Your task to perform on an android device: Open the calendar app, open the side menu, and click the "Day" option Image 0: 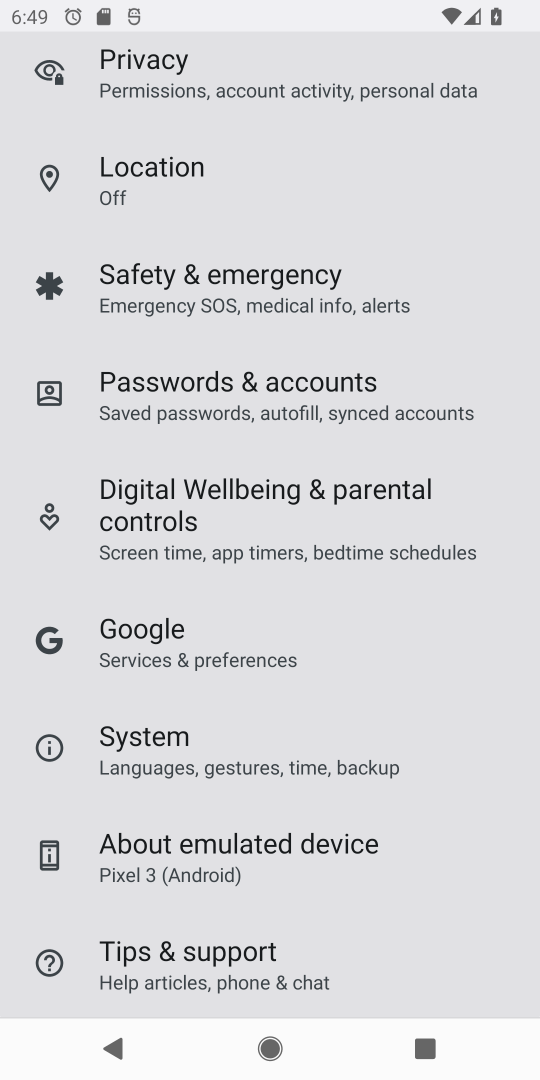
Step 0: press home button
Your task to perform on an android device: Open the calendar app, open the side menu, and click the "Day" option Image 1: 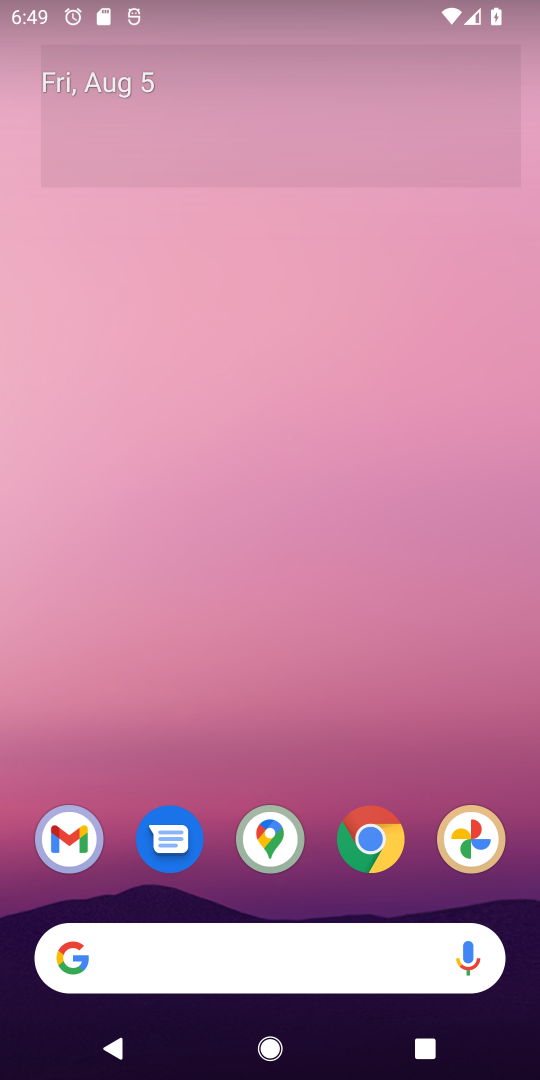
Step 1: drag from (279, 727) to (290, 85)
Your task to perform on an android device: Open the calendar app, open the side menu, and click the "Day" option Image 2: 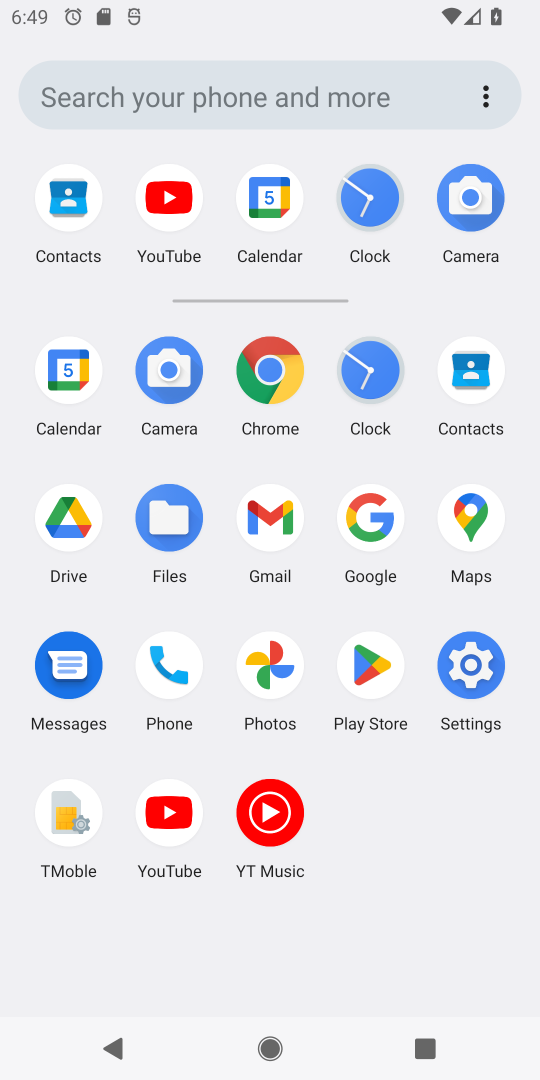
Step 2: click (62, 413)
Your task to perform on an android device: Open the calendar app, open the side menu, and click the "Day" option Image 3: 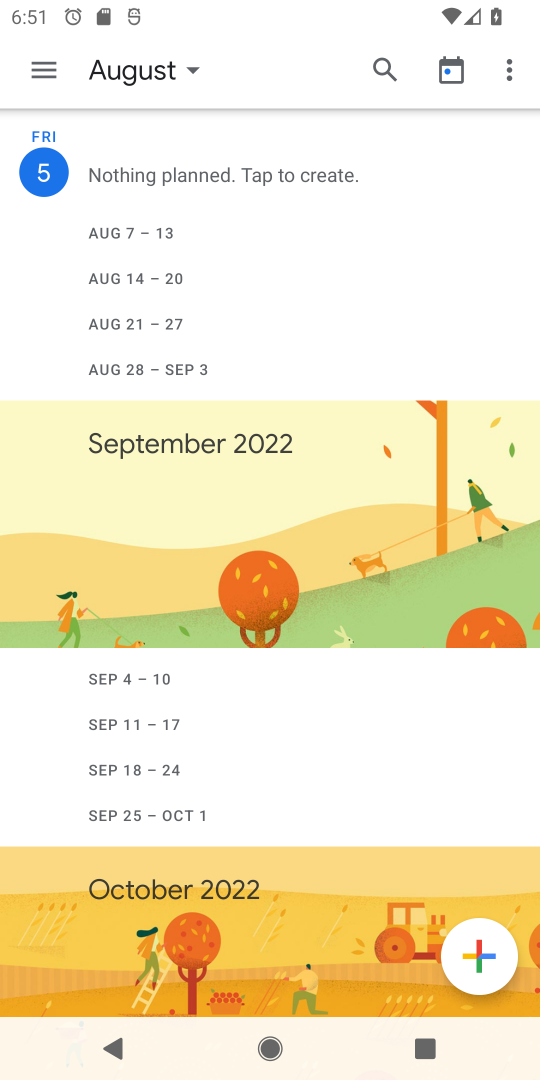
Step 3: click (52, 66)
Your task to perform on an android device: Open the calendar app, open the side menu, and click the "Day" option Image 4: 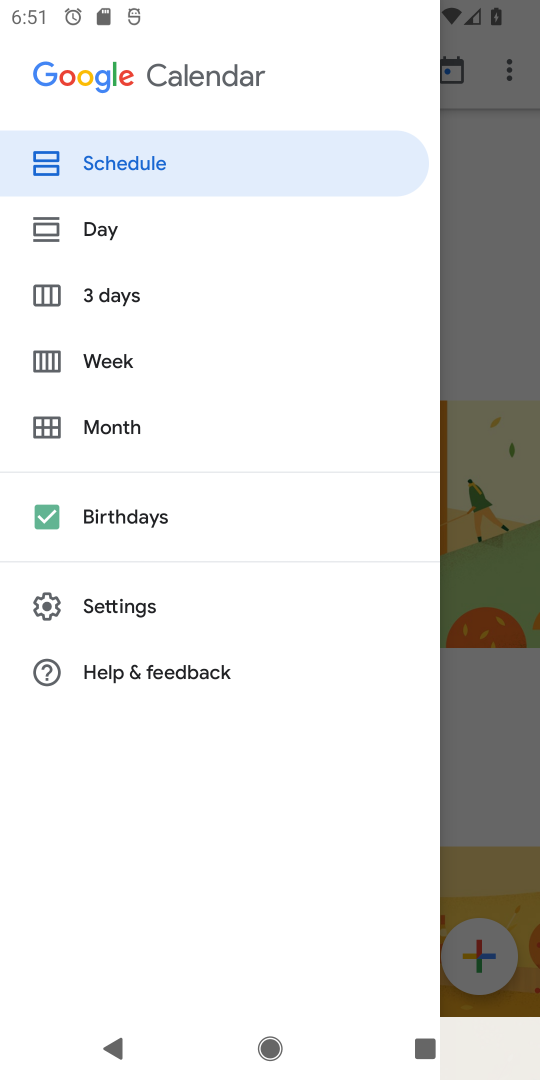
Step 4: click (166, 217)
Your task to perform on an android device: Open the calendar app, open the side menu, and click the "Day" option Image 5: 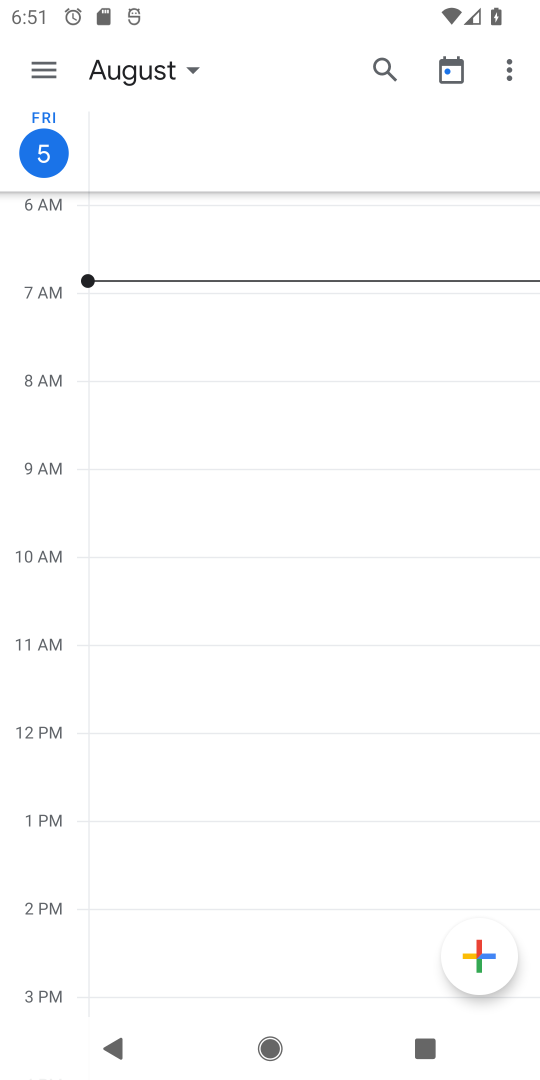
Step 5: task complete